Your task to perform on an android device: open app "Paramount+ | Peak Streaming" Image 0: 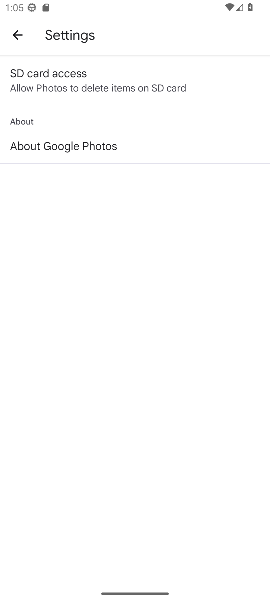
Step 0: press home button
Your task to perform on an android device: open app "Paramount+ | Peak Streaming" Image 1: 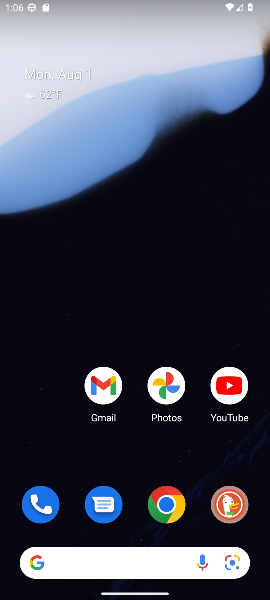
Step 1: drag from (167, 563) to (213, 3)
Your task to perform on an android device: open app "Paramount+ | Peak Streaming" Image 2: 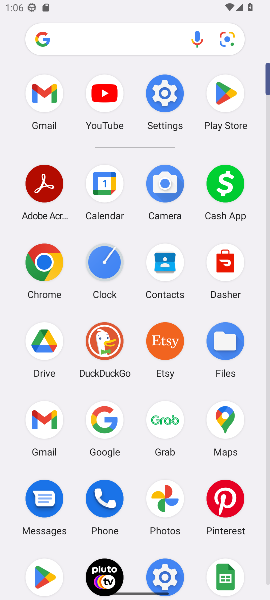
Step 2: click (234, 110)
Your task to perform on an android device: open app "Paramount+ | Peak Streaming" Image 3: 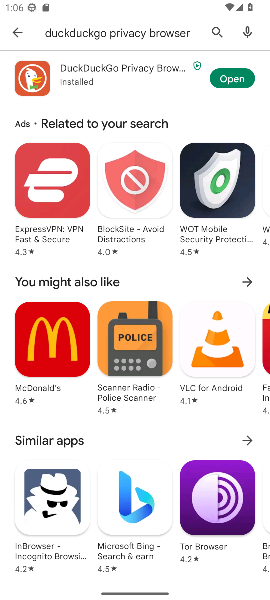
Step 3: click (209, 24)
Your task to perform on an android device: open app "Paramount+ | Peak Streaming" Image 4: 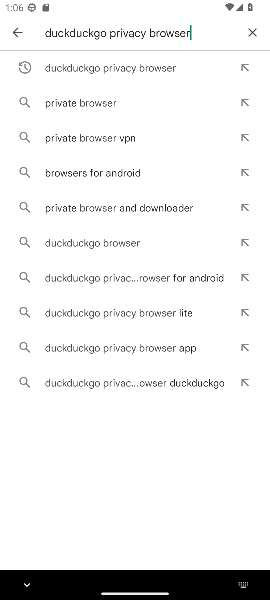
Step 4: click (251, 33)
Your task to perform on an android device: open app "Paramount+ | Peak Streaming" Image 5: 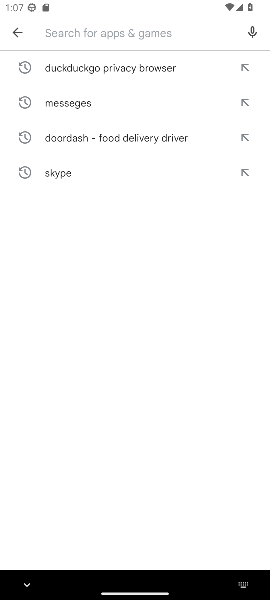
Step 5: type "paramount+ | Peak "
Your task to perform on an android device: open app "Paramount+ | Peak Streaming" Image 6: 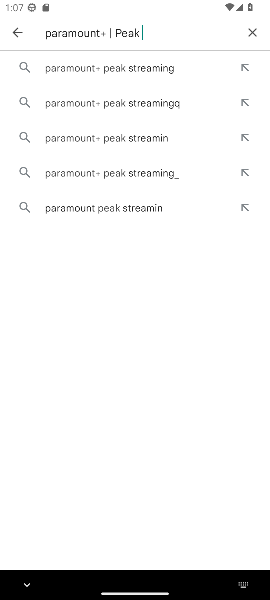
Step 6: click (109, 62)
Your task to perform on an android device: open app "Paramount+ | Peak Streaming" Image 7: 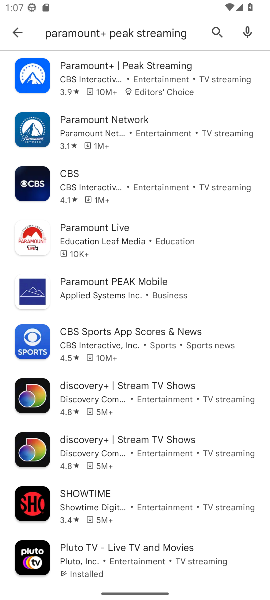
Step 7: click (109, 62)
Your task to perform on an android device: open app "Paramount+ | Peak Streaming" Image 8: 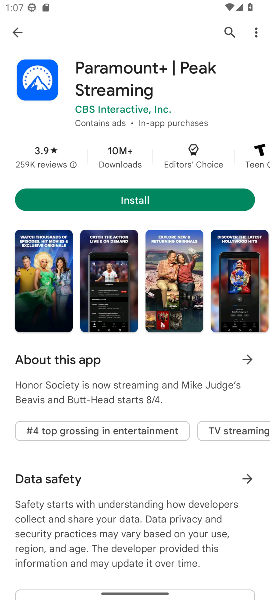
Step 8: task complete